Your task to perform on an android device: open app "ColorNote Notepad Notes" (install if not already installed) Image 0: 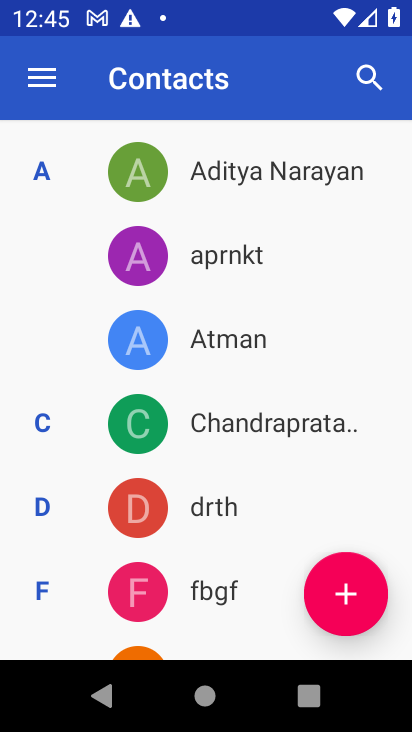
Step 0: click (269, 521)
Your task to perform on an android device: open app "ColorNote Notepad Notes" (install if not already installed) Image 1: 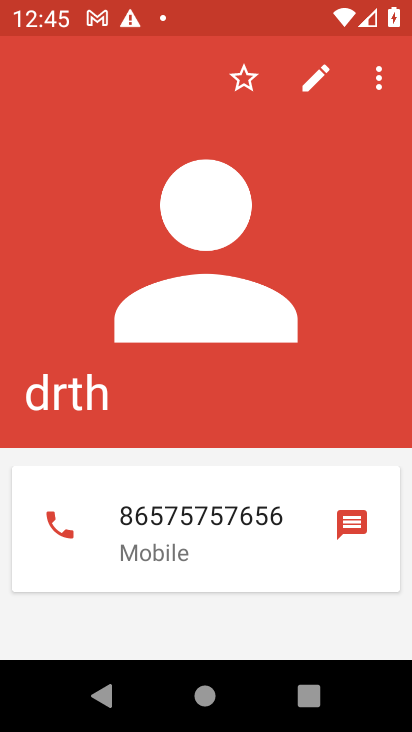
Step 1: task complete